Your task to perform on an android device: empty trash in the gmail app Image 0: 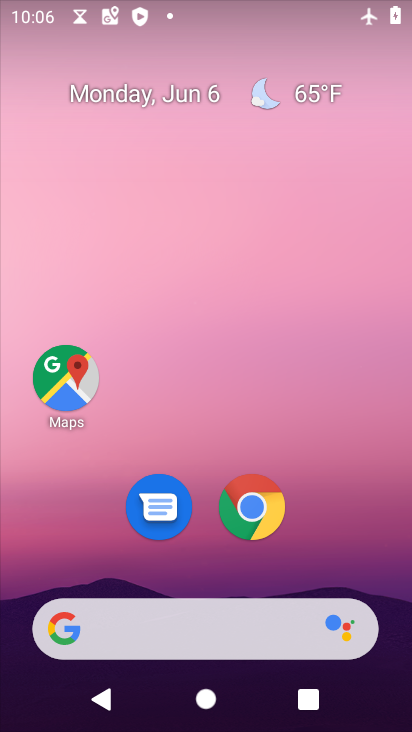
Step 0: drag from (332, 566) to (310, 243)
Your task to perform on an android device: empty trash in the gmail app Image 1: 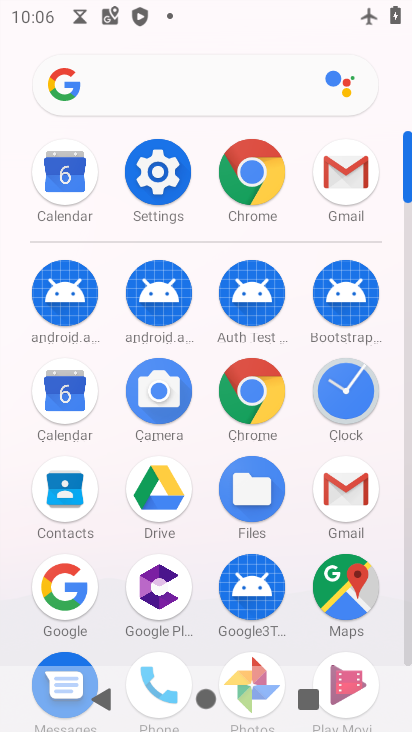
Step 1: click (328, 177)
Your task to perform on an android device: empty trash in the gmail app Image 2: 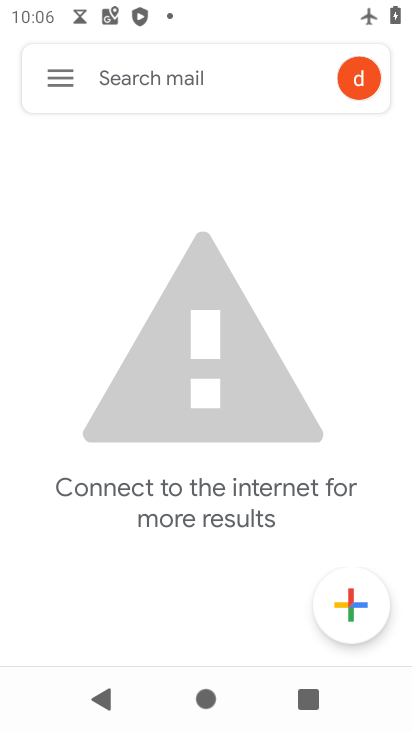
Step 2: click (44, 82)
Your task to perform on an android device: empty trash in the gmail app Image 3: 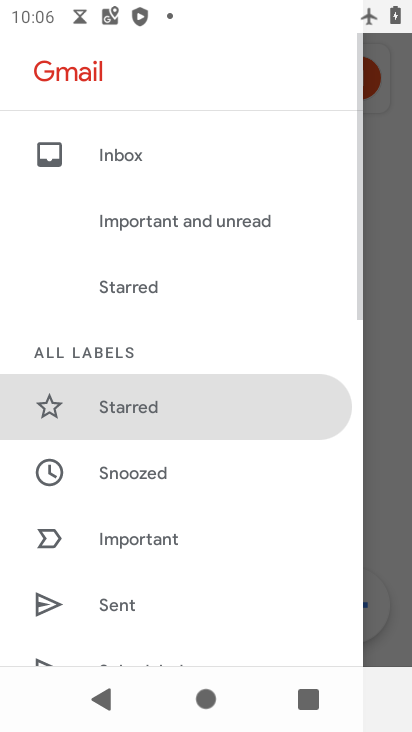
Step 3: drag from (171, 602) to (178, 331)
Your task to perform on an android device: empty trash in the gmail app Image 4: 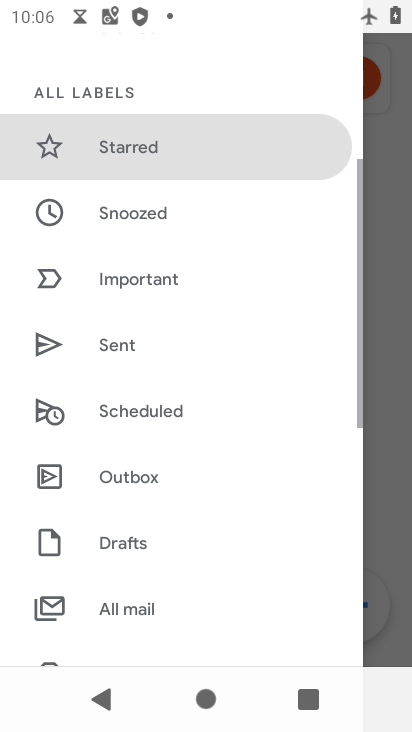
Step 4: drag from (148, 566) to (161, 278)
Your task to perform on an android device: empty trash in the gmail app Image 5: 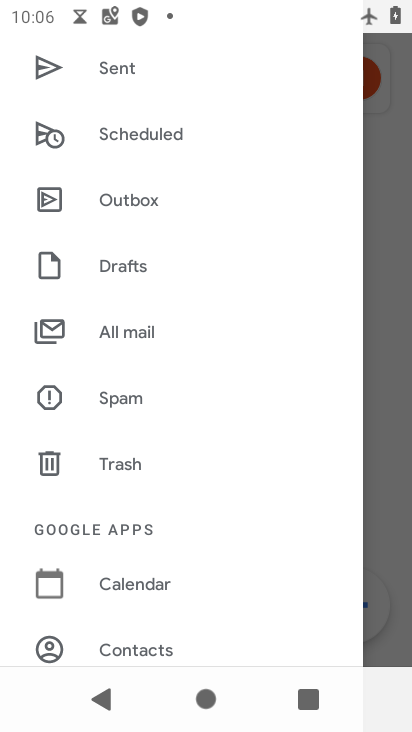
Step 5: click (132, 446)
Your task to perform on an android device: empty trash in the gmail app Image 6: 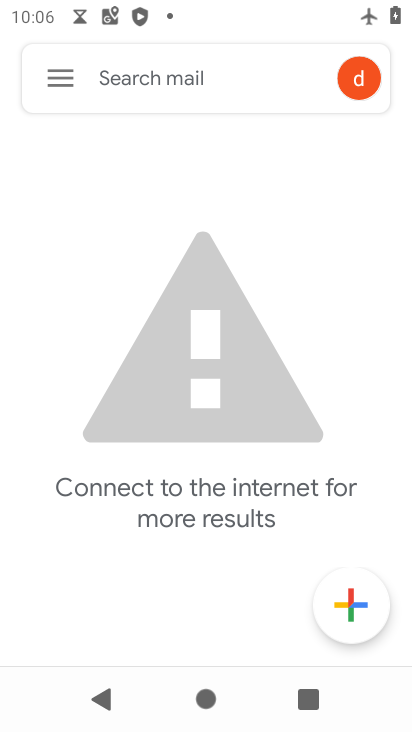
Step 6: click (40, 58)
Your task to perform on an android device: empty trash in the gmail app Image 7: 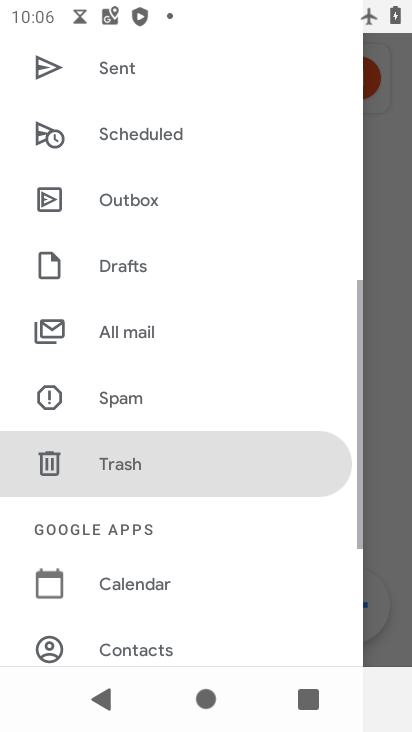
Step 7: click (149, 461)
Your task to perform on an android device: empty trash in the gmail app Image 8: 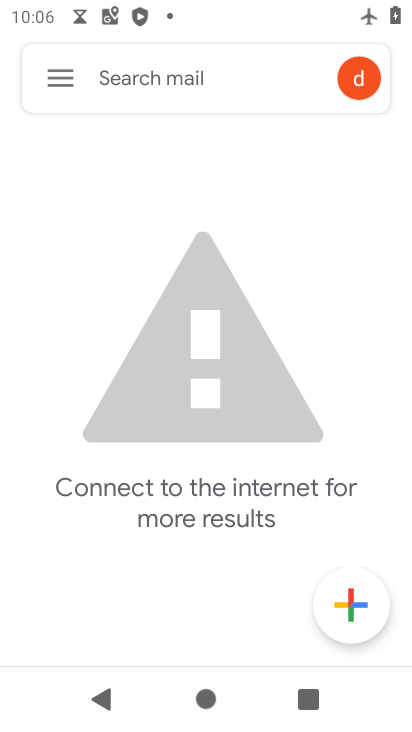
Step 8: task complete